Your task to perform on an android device: delete the emails in spam in the gmail app Image 0: 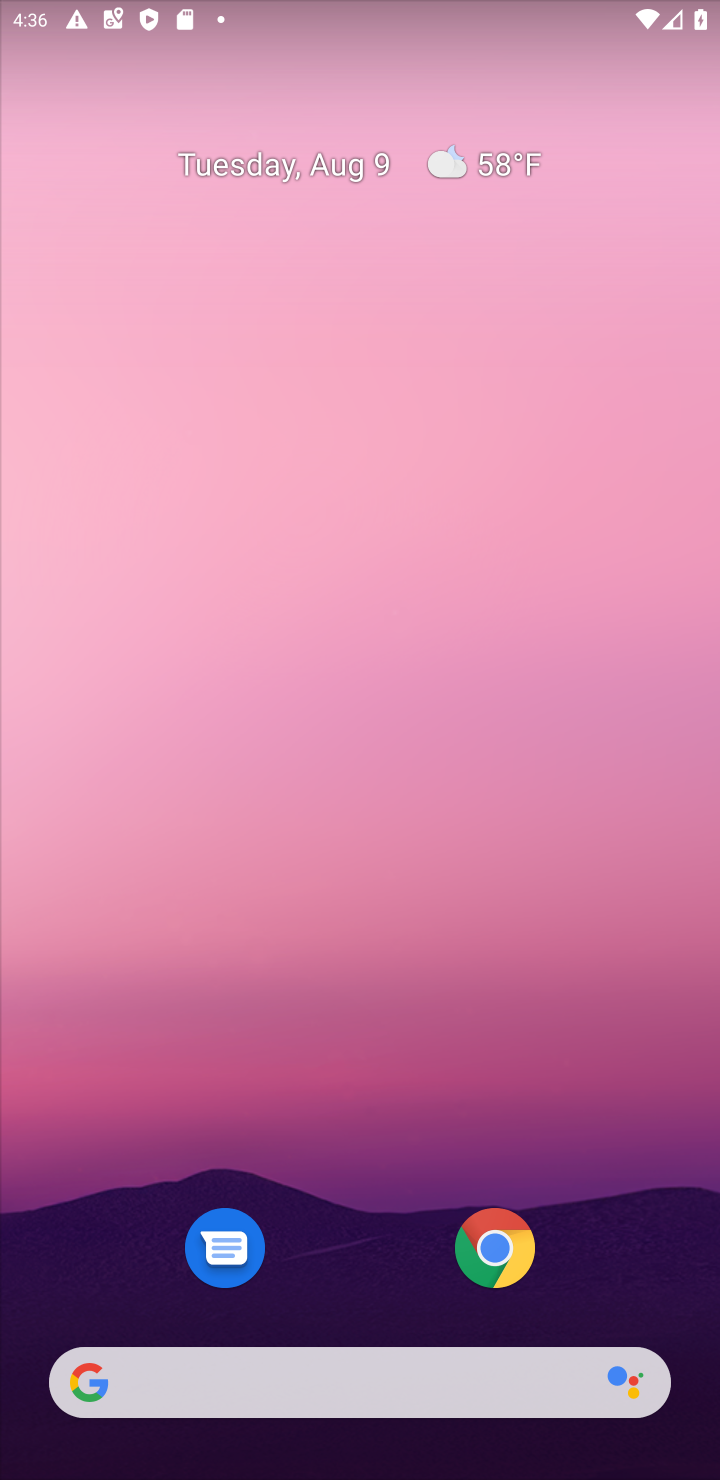
Step 0: drag from (330, 1199) to (141, 89)
Your task to perform on an android device: delete the emails in spam in the gmail app Image 1: 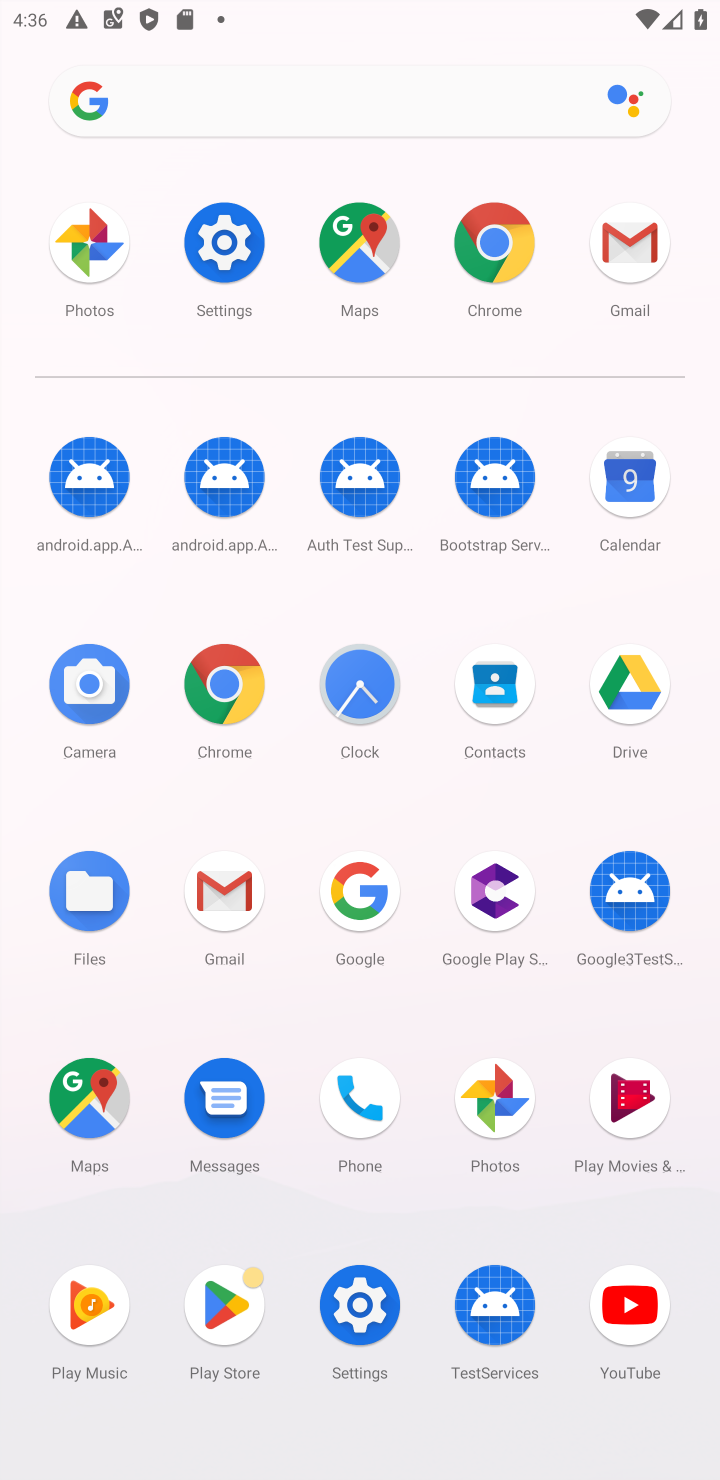
Step 1: click (237, 897)
Your task to perform on an android device: delete the emails in spam in the gmail app Image 2: 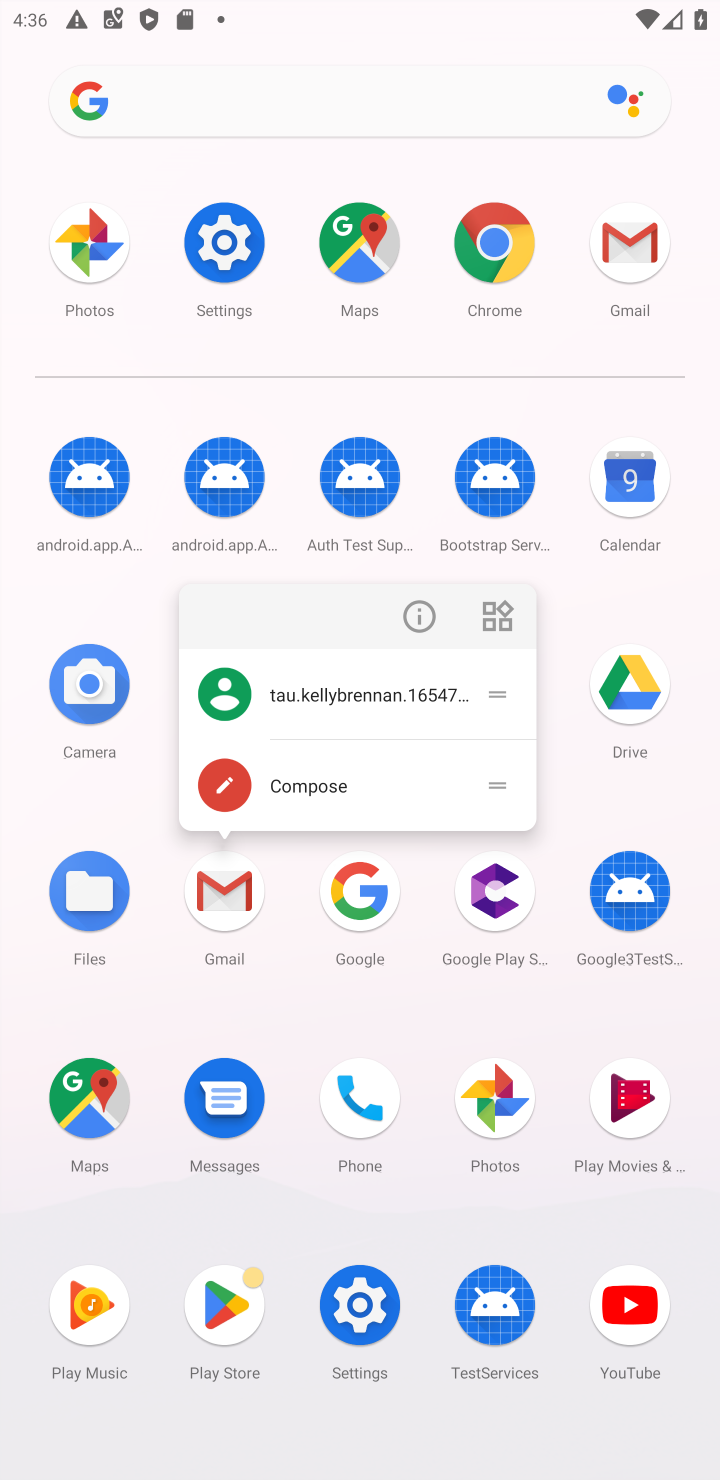
Step 2: click (224, 892)
Your task to perform on an android device: delete the emails in spam in the gmail app Image 3: 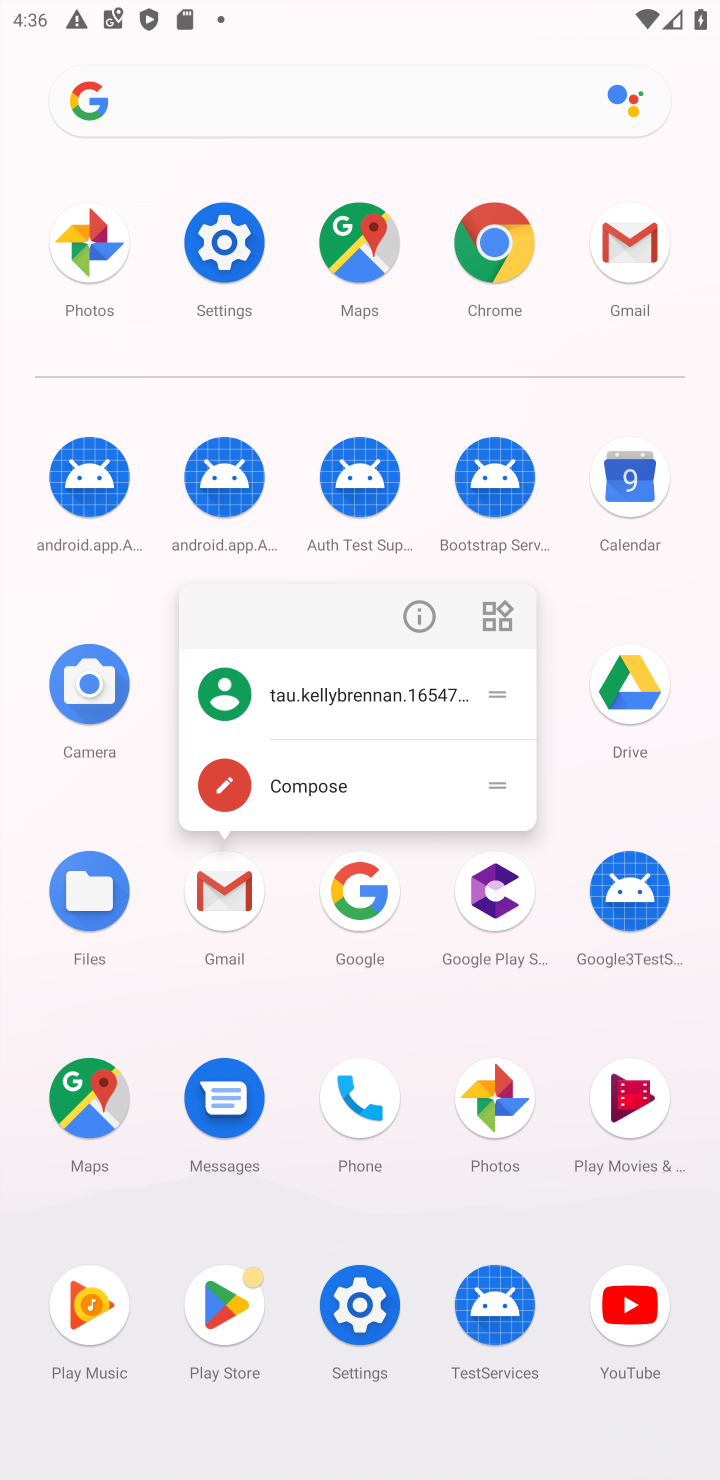
Step 3: click (224, 892)
Your task to perform on an android device: delete the emails in spam in the gmail app Image 4: 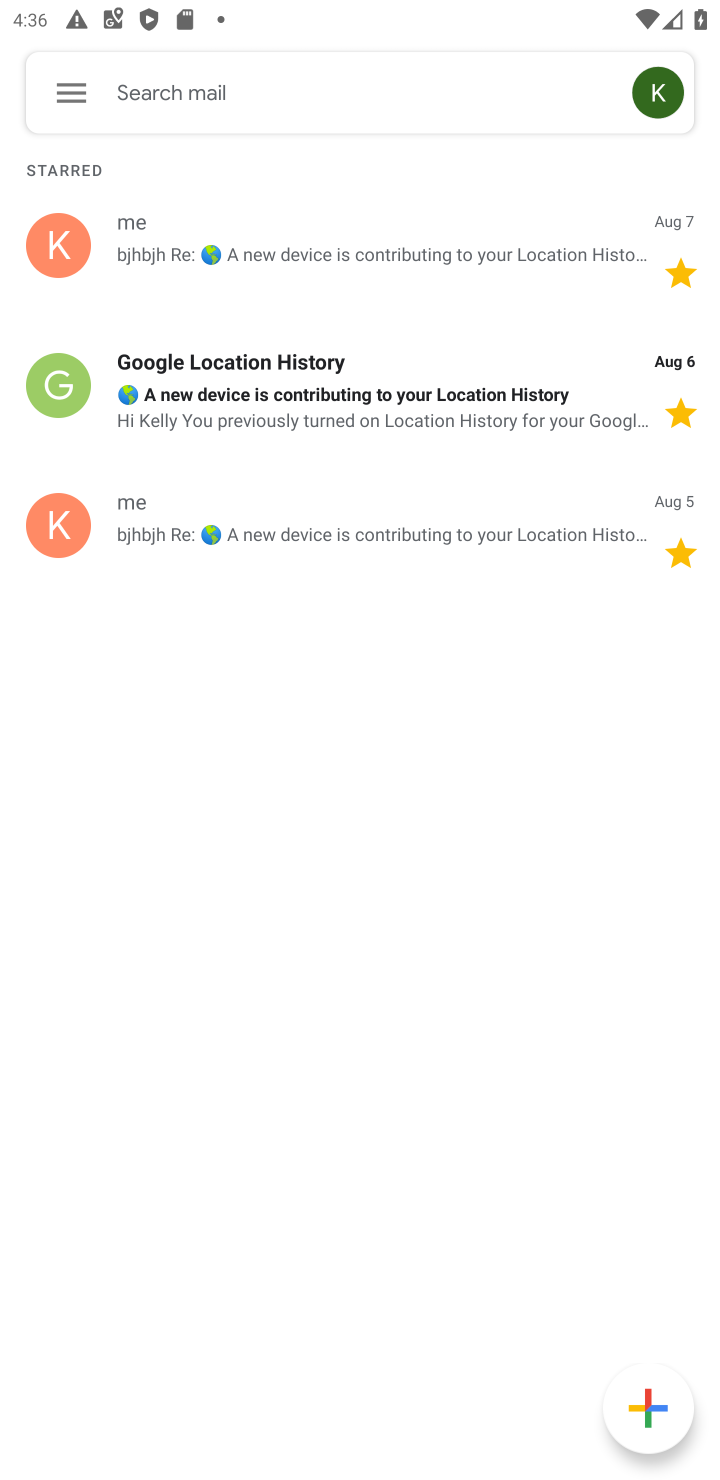
Step 4: click (70, 96)
Your task to perform on an android device: delete the emails in spam in the gmail app Image 5: 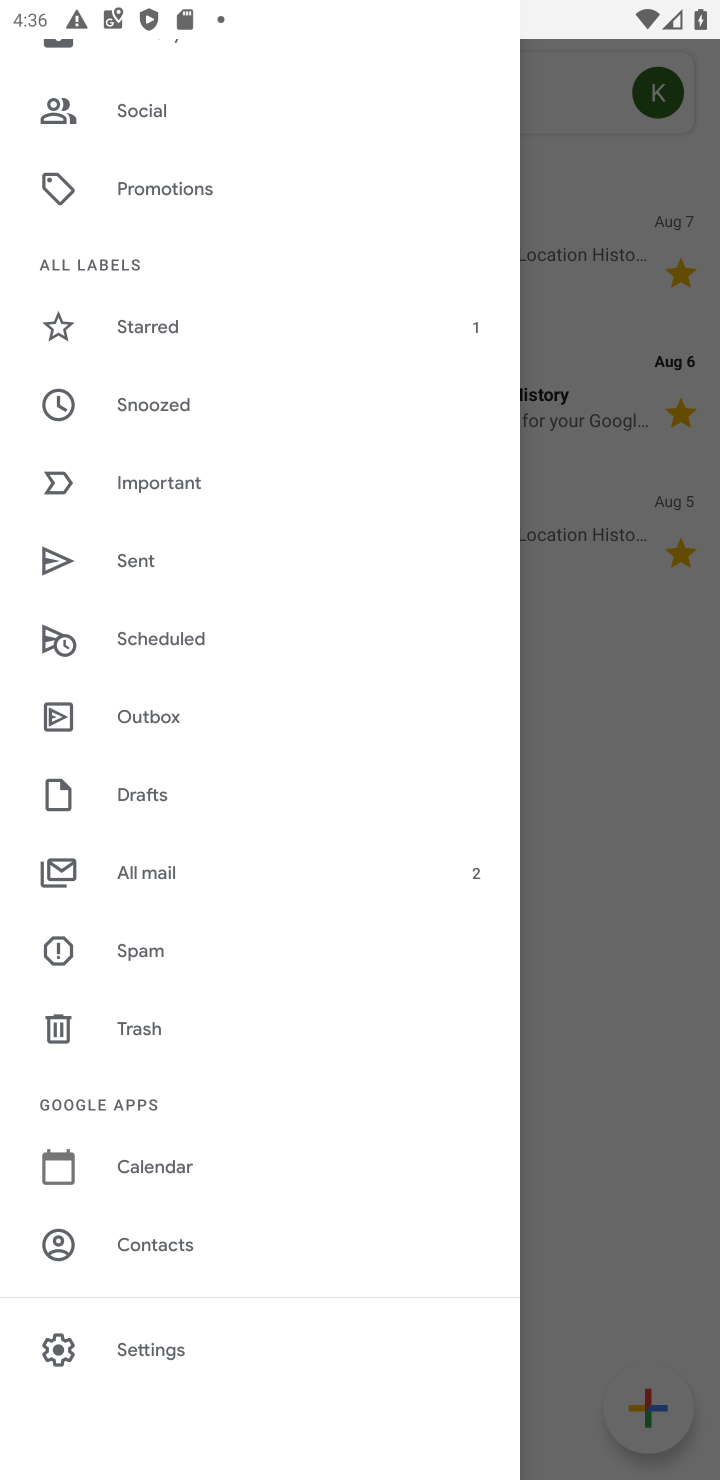
Step 5: click (138, 948)
Your task to perform on an android device: delete the emails in spam in the gmail app Image 6: 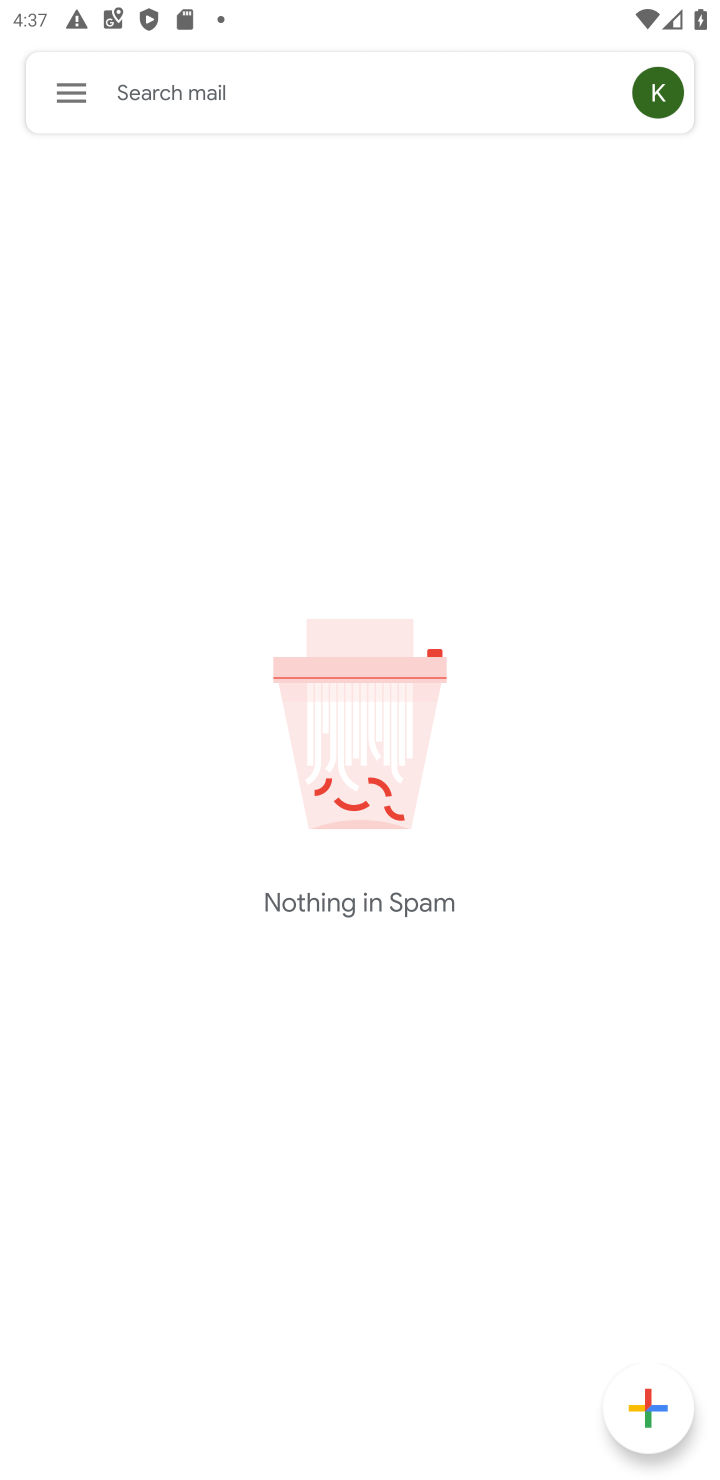
Step 6: task complete